Your task to perform on an android device: check out phone information Image 0: 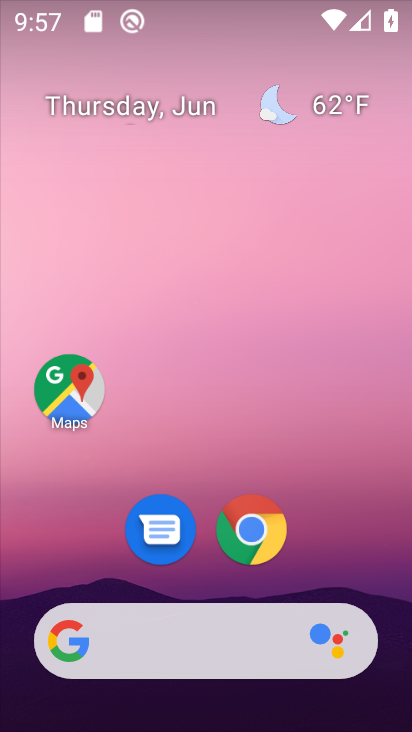
Step 0: drag from (200, 573) to (201, 0)
Your task to perform on an android device: check out phone information Image 1: 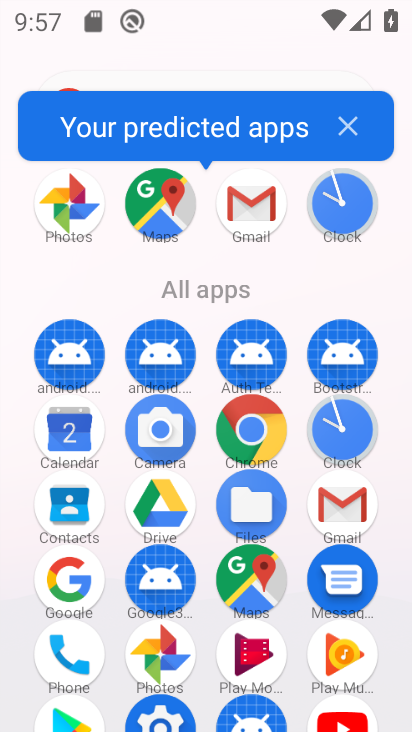
Step 1: click (159, 729)
Your task to perform on an android device: check out phone information Image 2: 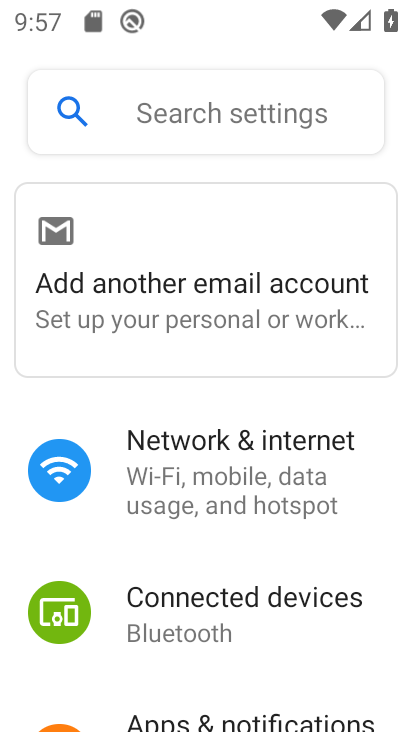
Step 2: drag from (243, 584) to (189, 10)
Your task to perform on an android device: check out phone information Image 3: 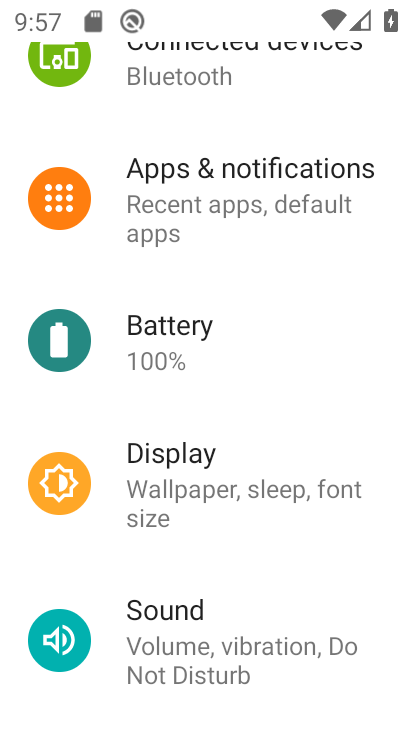
Step 3: drag from (162, 574) to (183, 52)
Your task to perform on an android device: check out phone information Image 4: 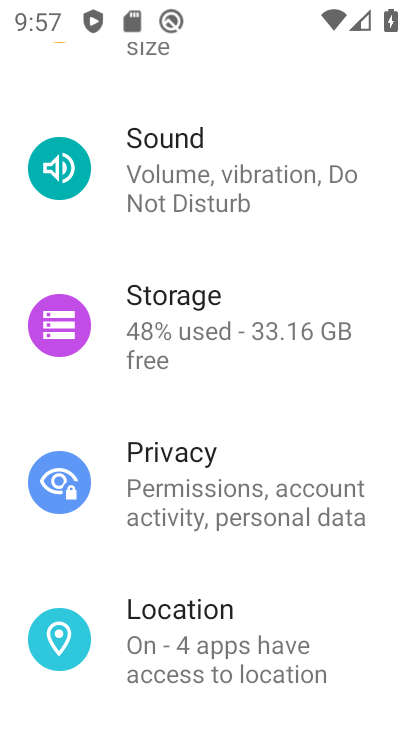
Step 4: drag from (284, 646) to (262, 132)
Your task to perform on an android device: check out phone information Image 5: 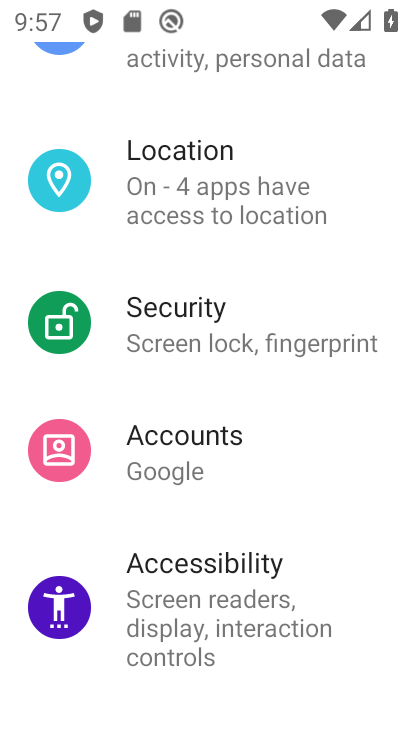
Step 5: drag from (227, 655) to (235, 199)
Your task to perform on an android device: check out phone information Image 6: 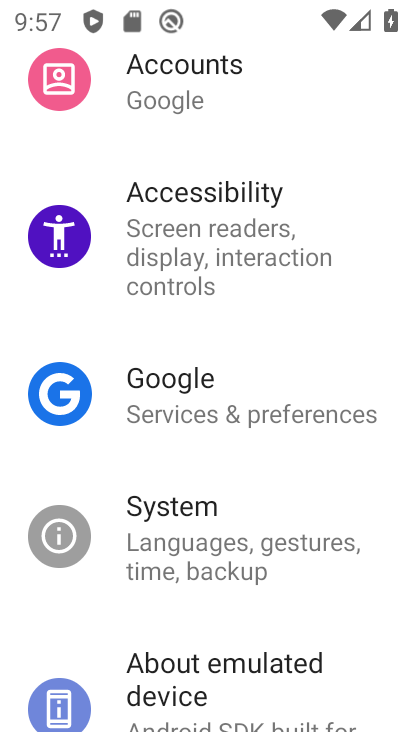
Step 6: click (147, 666)
Your task to perform on an android device: check out phone information Image 7: 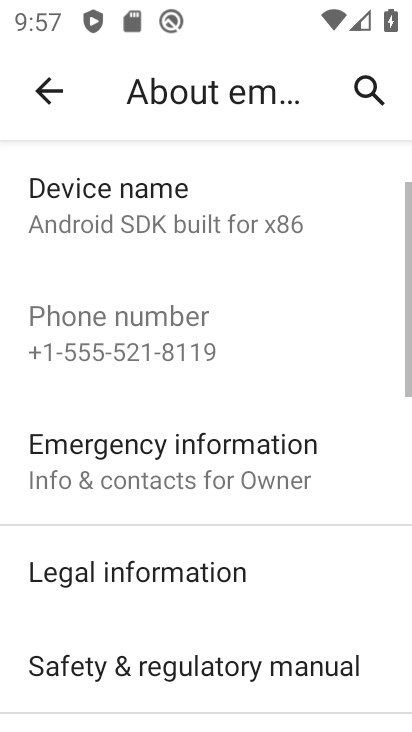
Step 7: task complete